Your task to perform on an android device: Open calendar and show me the second week of next month Image 0: 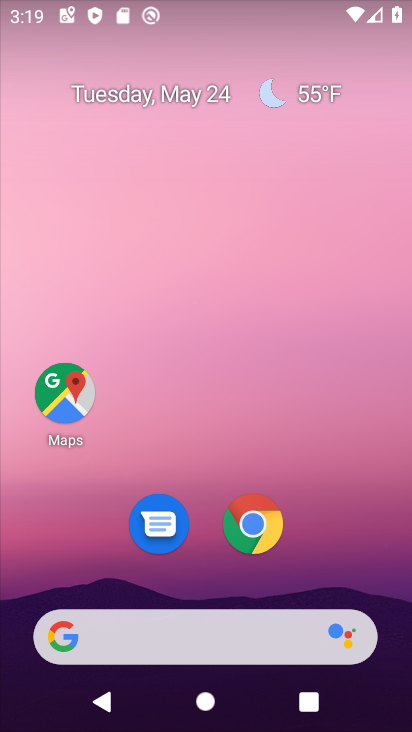
Step 0: drag from (337, 528) to (349, 53)
Your task to perform on an android device: Open calendar and show me the second week of next month Image 1: 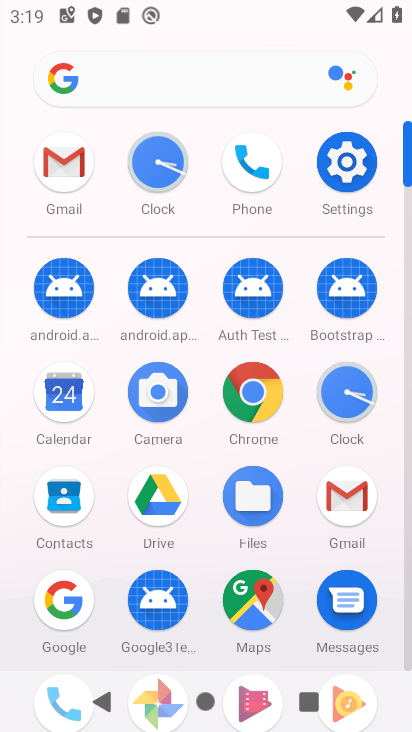
Step 1: click (67, 406)
Your task to perform on an android device: Open calendar and show me the second week of next month Image 2: 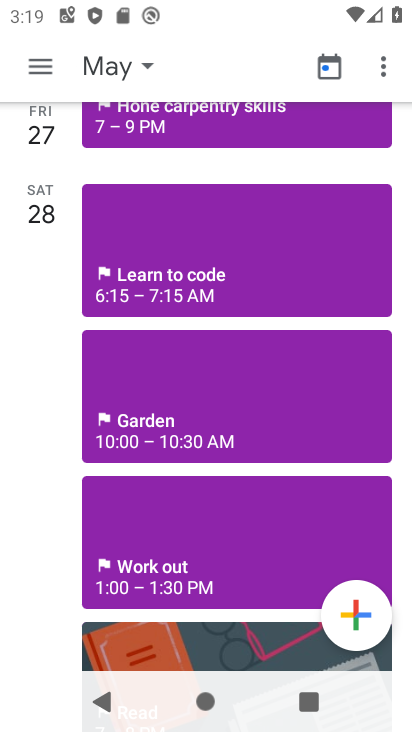
Step 2: click (46, 67)
Your task to perform on an android device: Open calendar and show me the second week of next month Image 3: 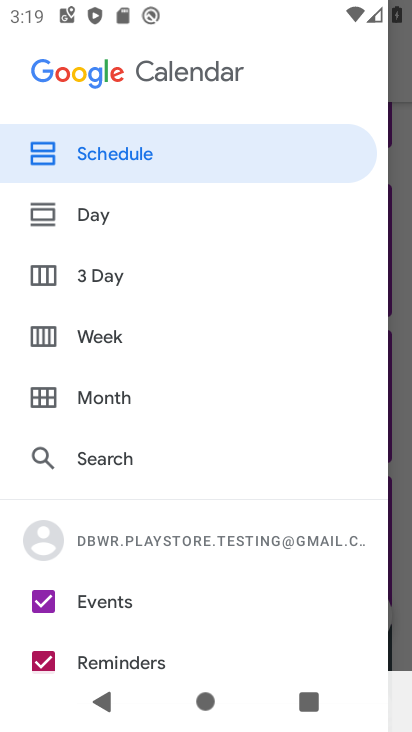
Step 3: click (66, 330)
Your task to perform on an android device: Open calendar and show me the second week of next month Image 4: 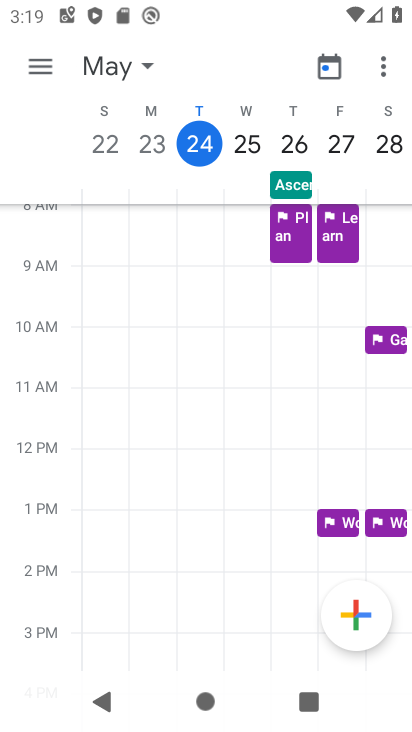
Step 4: task complete